Your task to perform on an android device: choose inbox layout in the gmail app Image 0: 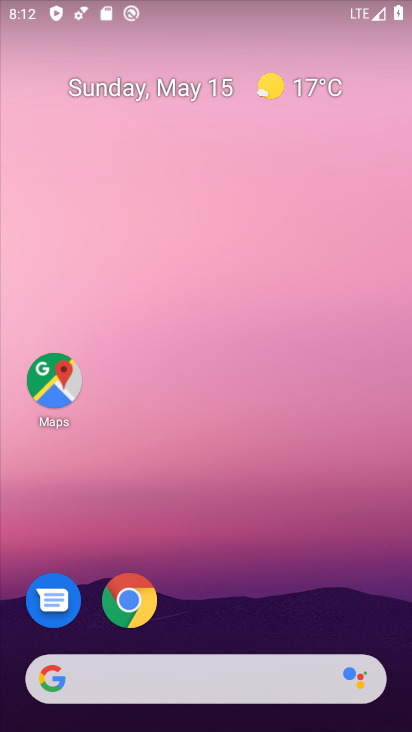
Step 0: drag from (284, 610) to (223, 4)
Your task to perform on an android device: choose inbox layout in the gmail app Image 1: 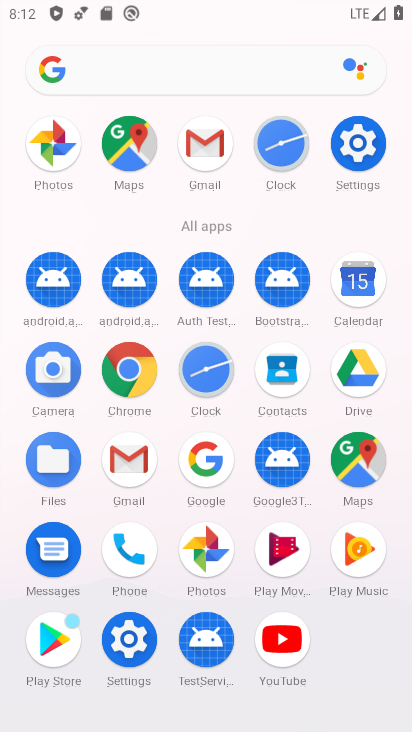
Step 1: click (206, 142)
Your task to perform on an android device: choose inbox layout in the gmail app Image 2: 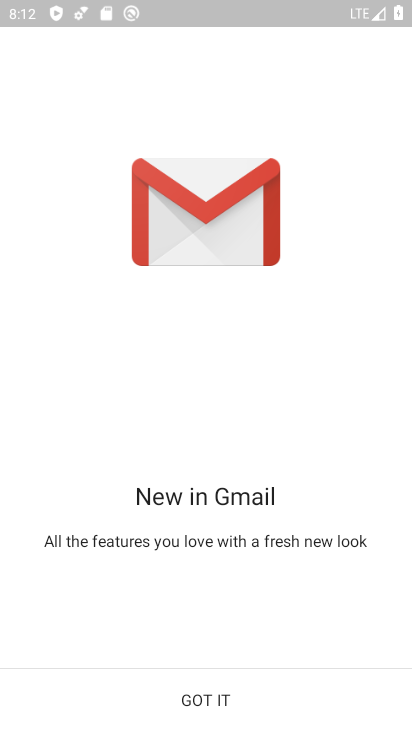
Step 2: click (188, 699)
Your task to perform on an android device: choose inbox layout in the gmail app Image 3: 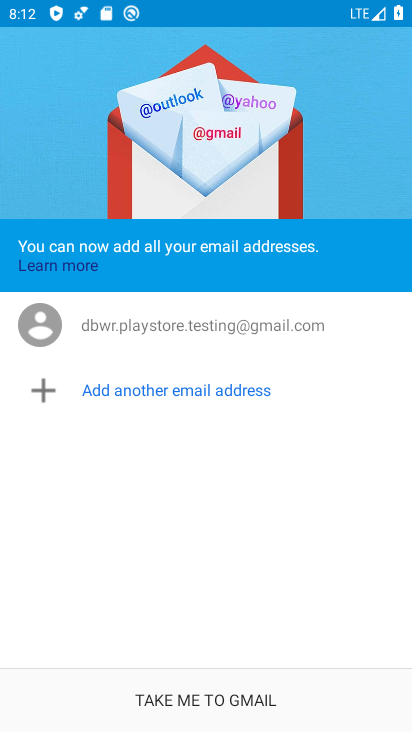
Step 3: click (207, 712)
Your task to perform on an android device: choose inbox layout in the gmail app Image 4: 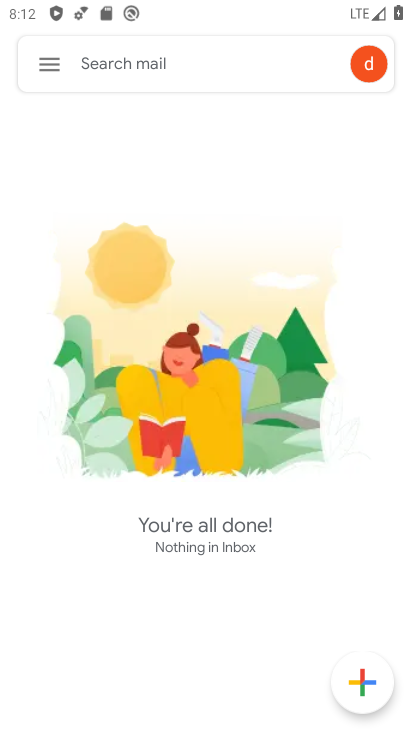
Step 4: click (43, 56)
Your task to perform on an android device: choose inbox layout in the gmail app Image 5: 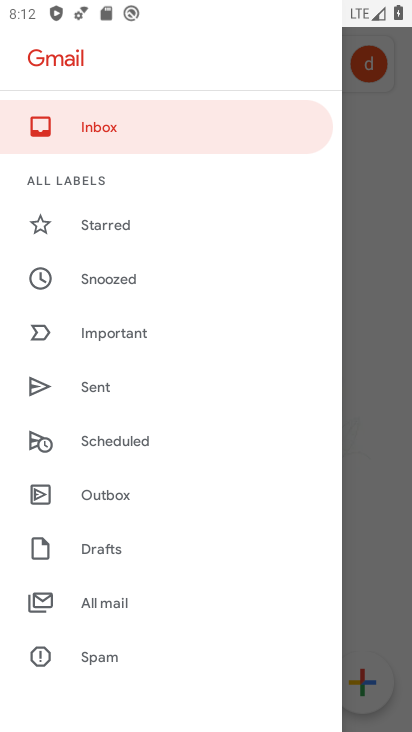
Step 5: drag from (117, 478) to (162, 393)
Your task to perform on an android device: choose inbox layout in the gmail app Image 6: 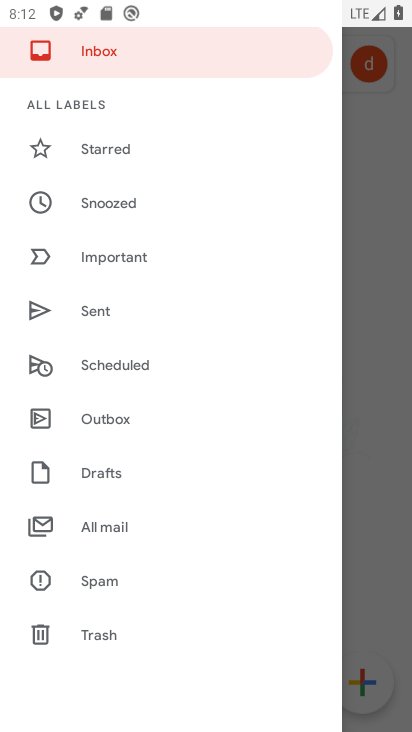
Step 6: drag from (127, 585) to (151, 492)
Your task to perform on an android device: choose inbox layout in the gmail app Image 7: 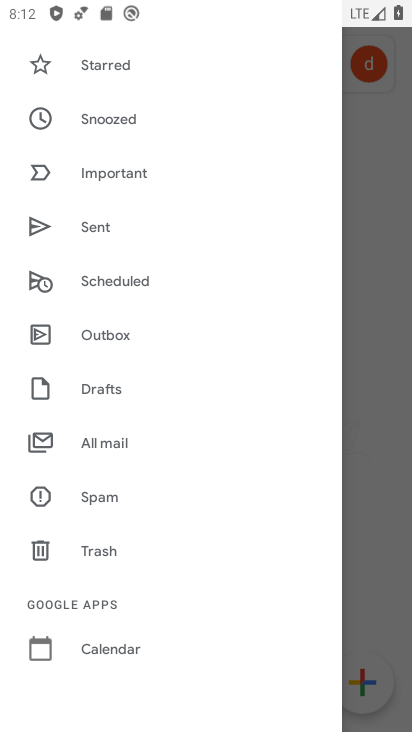
Step 7: drag from (112, 610) to (167, 521)
Your task to perform on an android device: choose inbox layout in the gmail app Image 8: 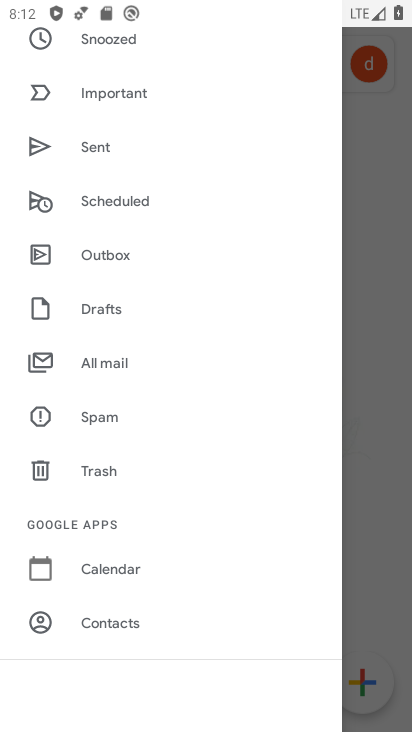
Step 8: drag from (135, 603) to (208, 496)
Your task to perform on an android device: choose inbox layout in the gmail app Image 9: 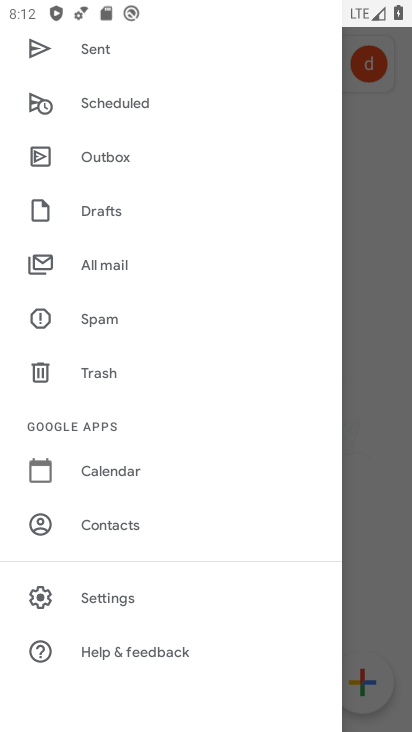
Step 9: click (116, 597)
Your task to perform on an android device: choose inbox layout in the gmail app Image 10: 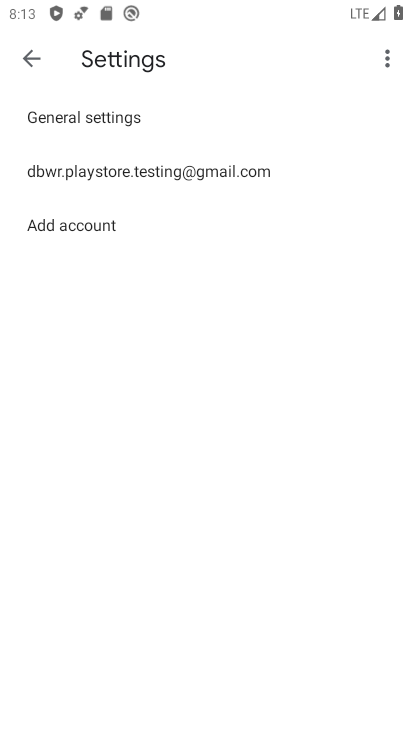
Step 10: click (234, 171)
Your task to perform on an android device: choose inbox layout in the gmail app Image 11: 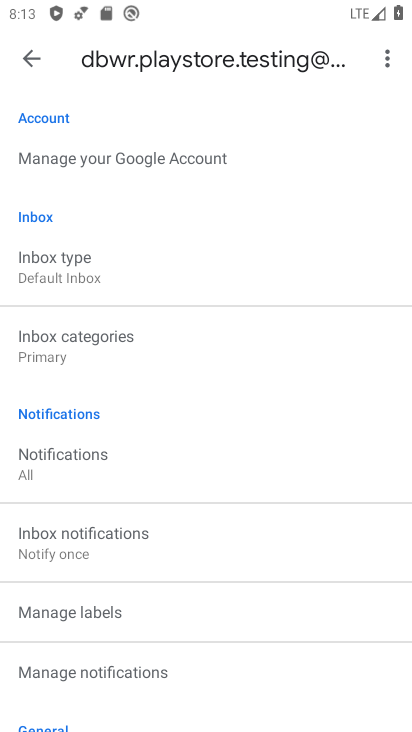
Step 11: click (58, 288)
Your task to perform on an android device: choose inbox layout in the gmail app Image 12: 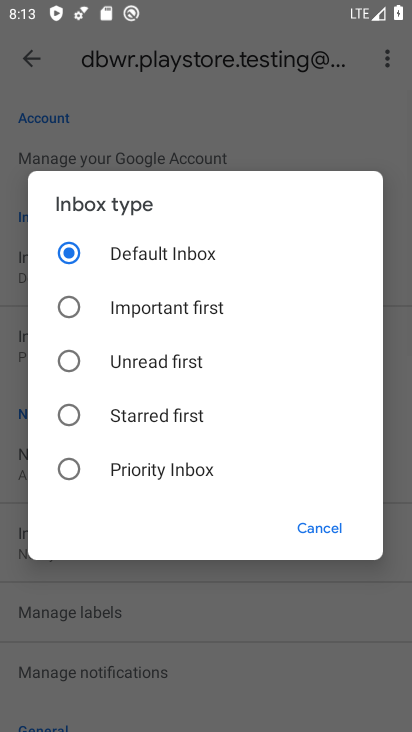
Step 12: click (58, 289)
Your task to perform on an android device: choose inbox layout in the gmail app Image 13: 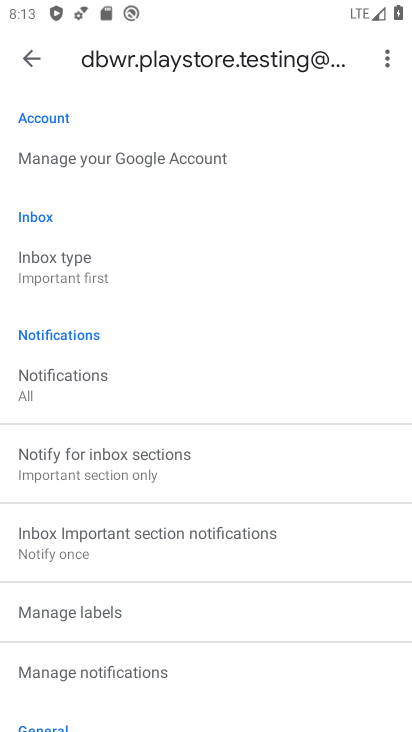
Step 13: task complete